Your task to perform on an android device: Open notification settings Image 0: 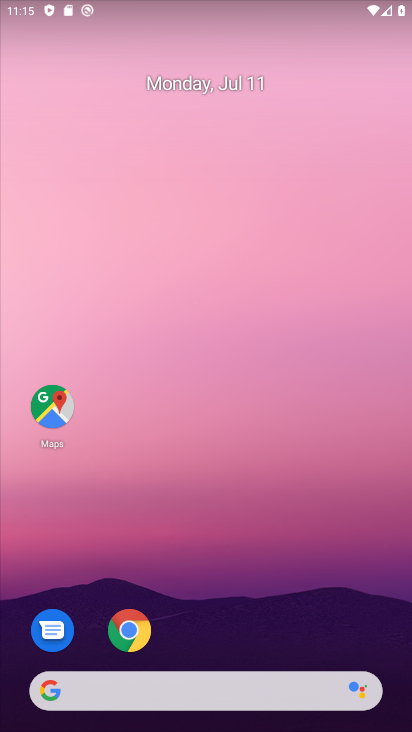
Step 0: drag from (198, 681) to (168, 173)
Your task to perform on an android device: Open notification settings Image 1: 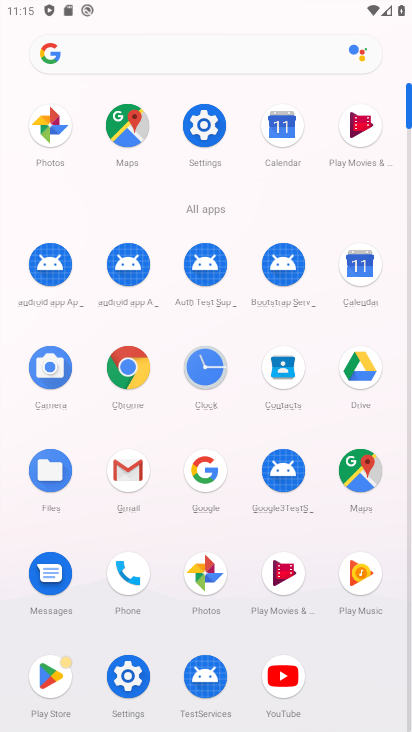
Step 1: click (205, 127)
Your task to perform on an android device: Open notification settings Image 2: 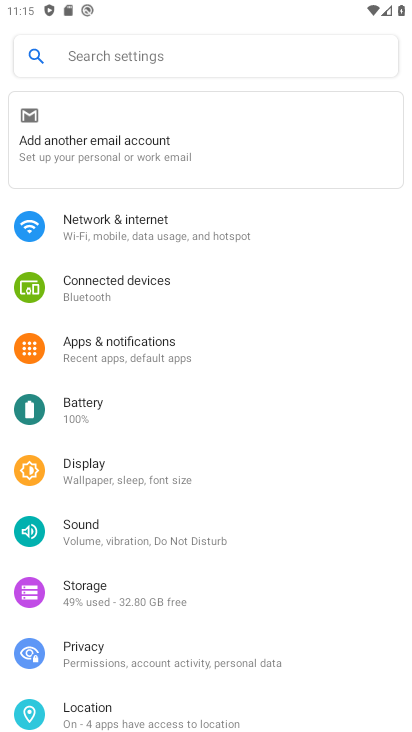
Step 2: click (119, 343)
Your task to perform on an android device: Open notification settings Image 3: 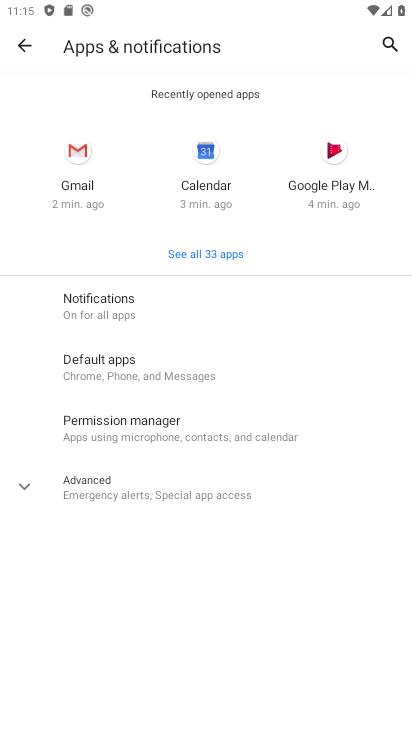
Step 3: click (116, 300)
Your task to perform on an android device: Open notification settings Image 4: 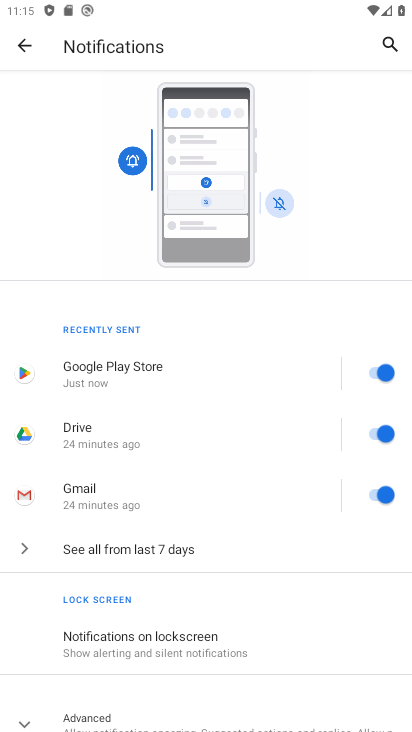
Step 4: task complete